Your task to perform on an android device: check data usage Image 0: 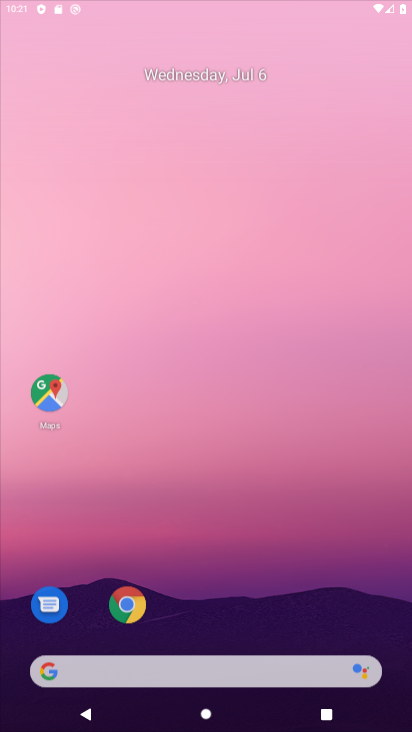
Step 0: click (219, 0)
Your task to perform on an android device: check data usage Image 1: 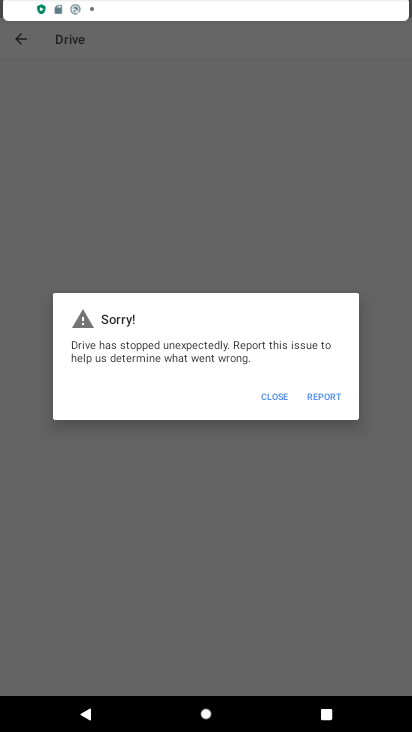
Step 1: press home button
Your task to perform on an android device: check data usage Image 2: 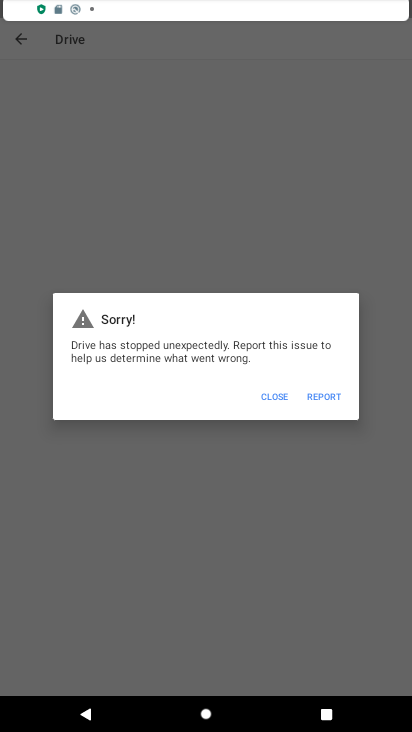
Step 2: drag from (219, 0) to (347, 730)
Your task to perform on an android device: check data usage Image 3: 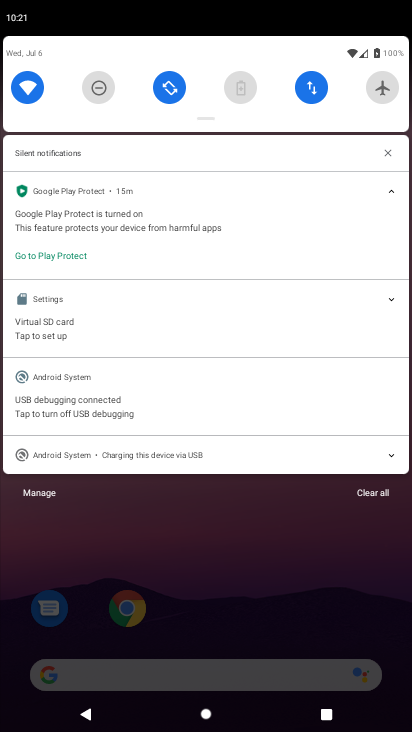
Step 3: drag from (236, 635) to (194, 236)
Your task to perform on an android device: check data usage Image 4: 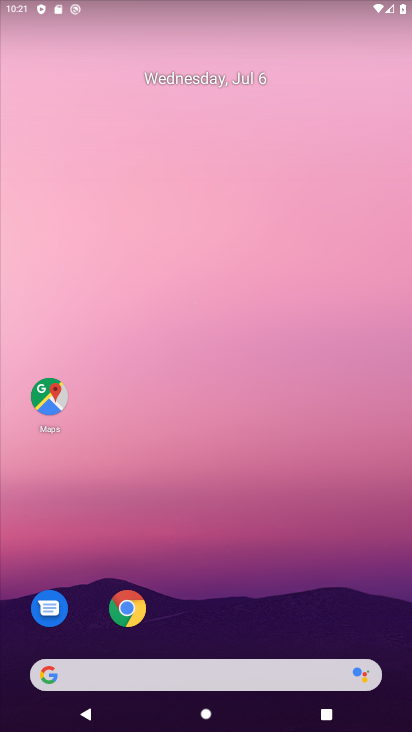
Step 4: drag from (203, 633) to (174, 172)
Your task to perform on an android device: check data usage Image 5: 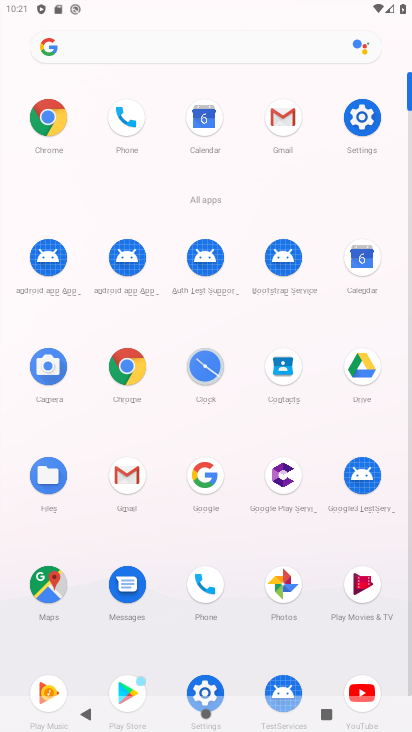
Step 5: click (367, 122)
Your task to perform on an android device: check data usage Image 6: 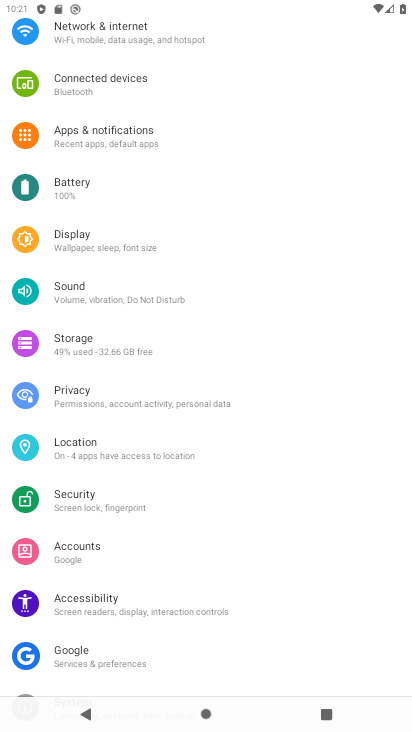
Step 6: drag from (162, 147) to (172, 410)
Your task to perform on an android device: check data usage Image 7: 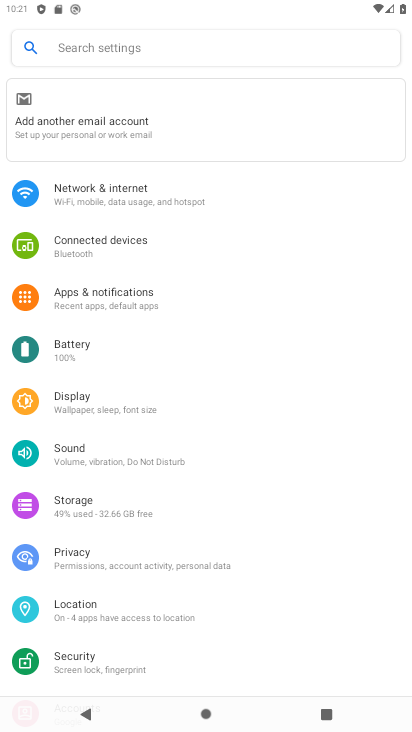
Step 7: click (110, 193)
Your task to perform on an android device: check data usage Image 8: 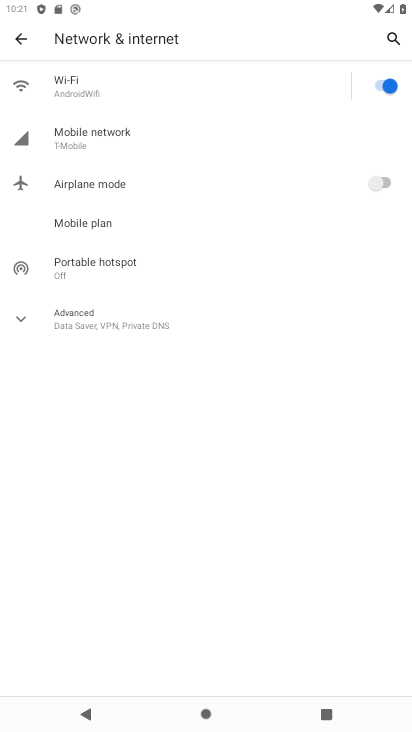
Step 8: click (110, 193)
Your task to perform on an android device: check data usage Image 9: 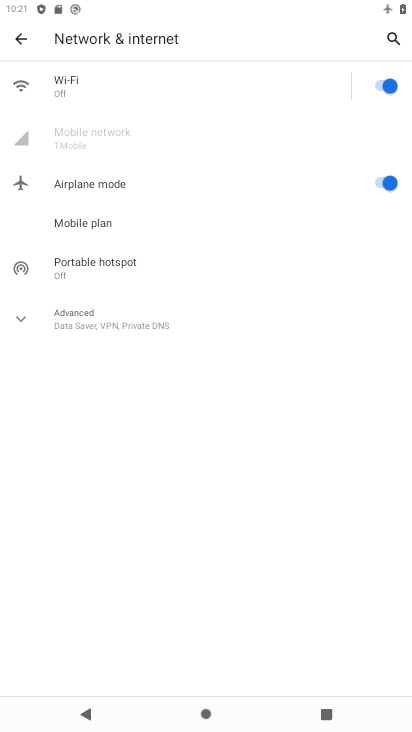
Step 9: click (75, 144)
Your task to perform on an android device: check data usage Image 10: 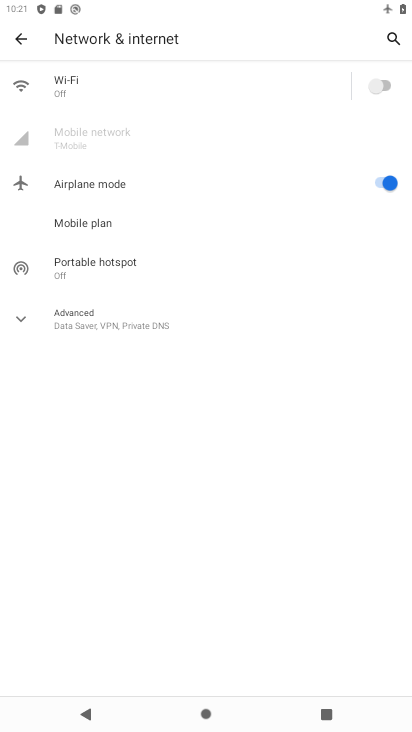
Step 10: click (75, 144)
Your task to perform on an android device: check data usage Image 11: 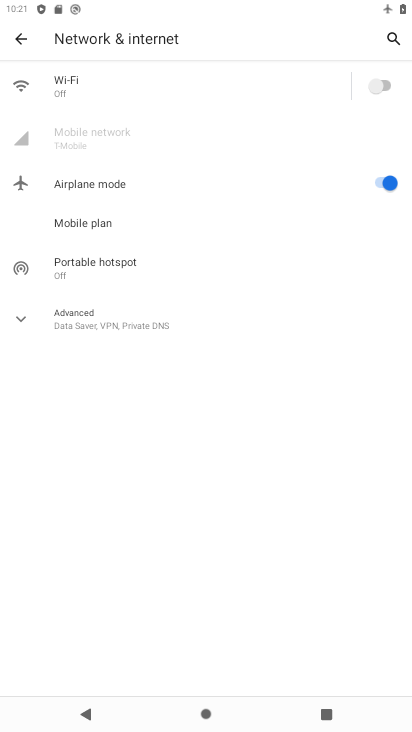
Step 11: click (372, 184)
Your task to perform on an android device: check data usage Image 12: 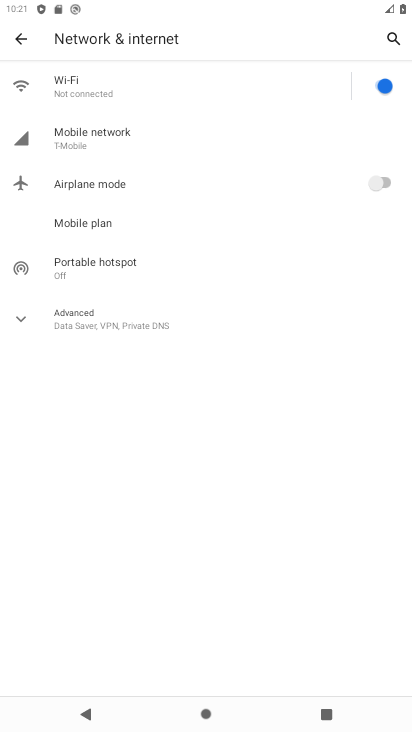
Step 12: task complete